Your task to perform on an android device: turn off notifications settings in the gmail app Image 0: 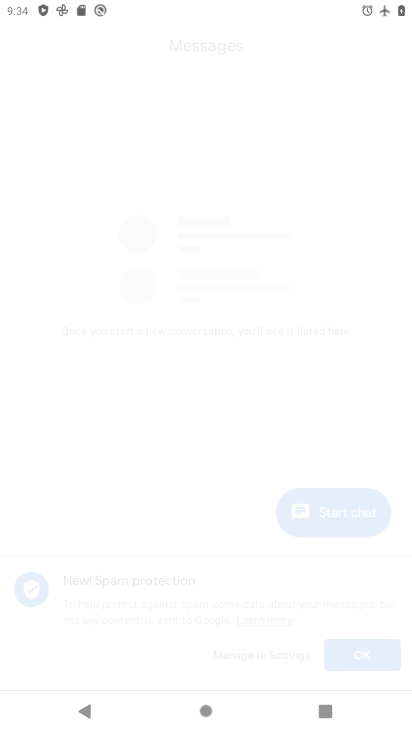
Step 0: drag from (293, 503) to (216, 48)
Your task to perform on an android device: turn off notifications settings in the gmail app Image 1: 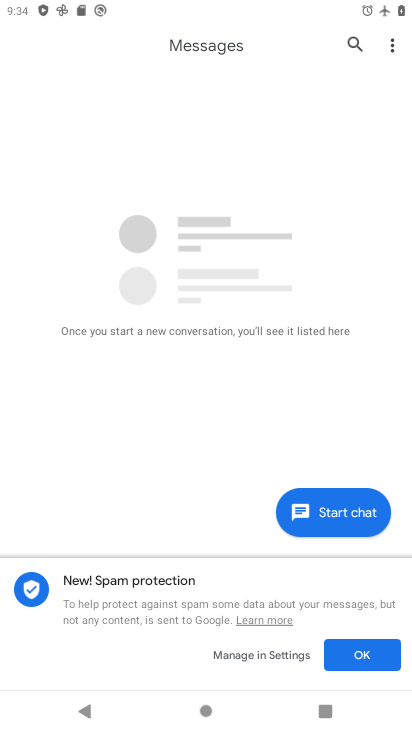
Step 1: press home button
Your task to perform on an android device: turn off notifications settings in the gmail app Image 2: 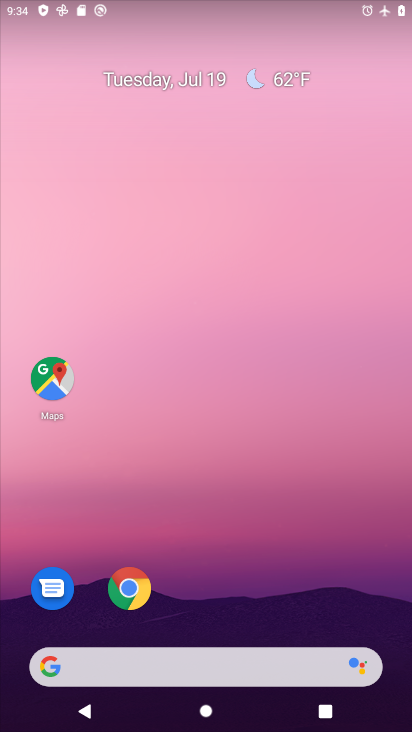
Step 2: drag from (256, 527) to (219, 176)
Your task to perform on an android device: turn off notifications settings in the gmail app Image 3: 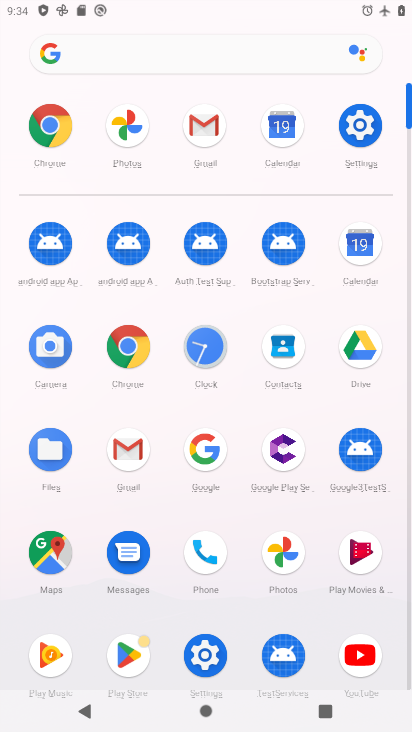
Step 3: click (210, 126)
Your task to perform on an android device: turn off notifications settings in the gmail app Image 4: 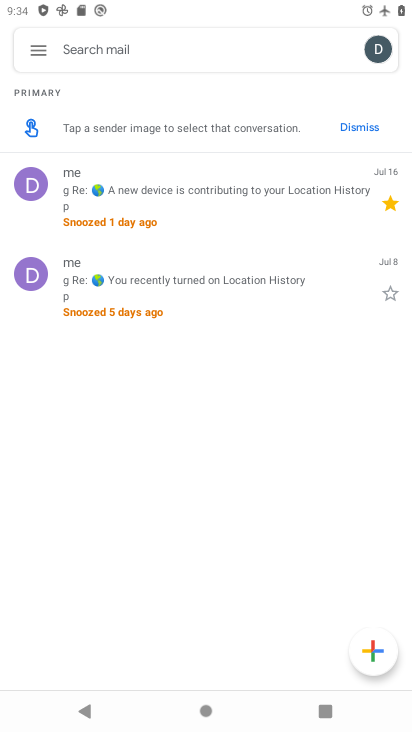
Step 4: click (34, 44)
Your task to perform on an android device: turn off notifications settings in the gmail app Image 5: 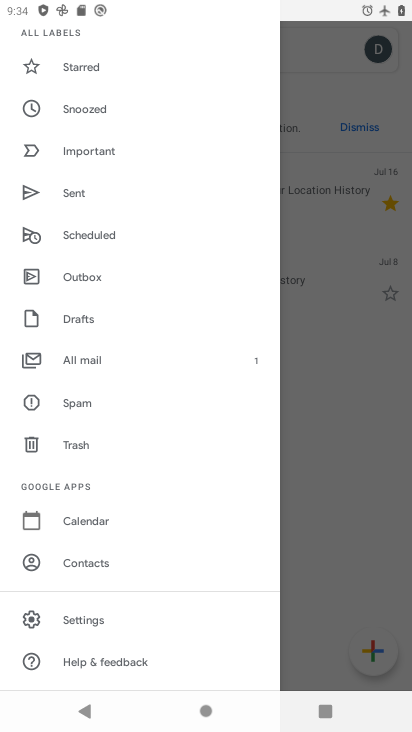
Step 5: click (84, 621)
Your task to perform on an android device: turn off notifications settings in the gmail app Image 6: 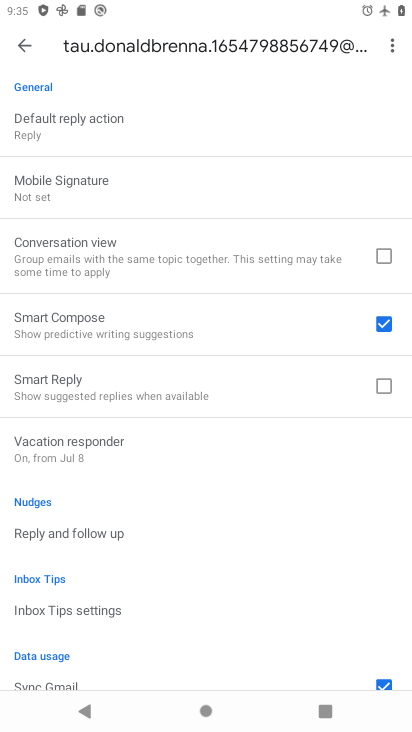
Step 6: drag from (183, 599) to (218, 133)
Your task to perform on an android device: turn off notifications settings in the gmail app Image 7: 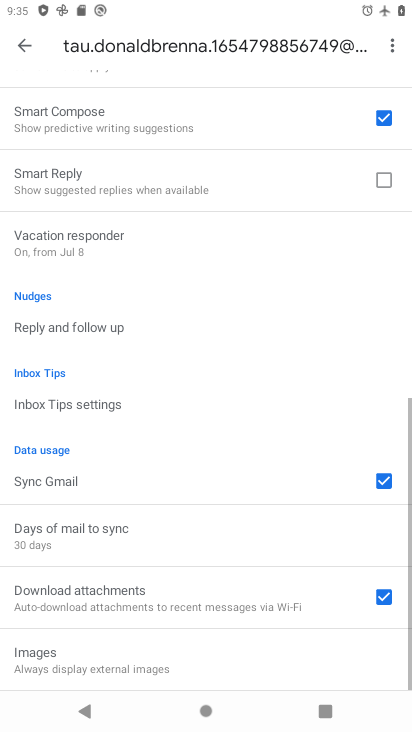
Step 7: drag from (218, 132) to (185, 647)
Your task to perform on an android device: turn off notifications settings in the gmail app Image 8: 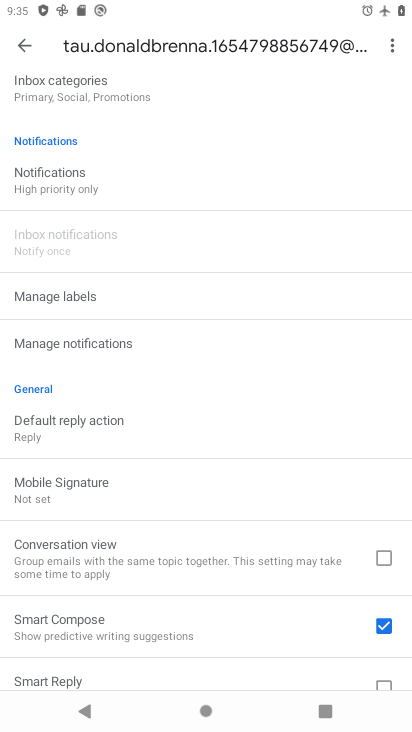
Step 8: drag from (160, 91) to (217, 566)
Your task to perform on an android device: turn off notifications settings in the gmail app Image 9: 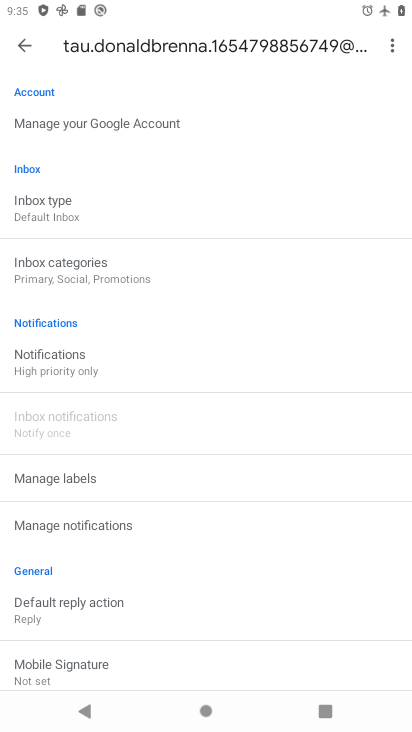
Step 9: drag from (155, 162) to (182, 524)
Your task to perform on an android device: turn off notifications settings in the gmail app Image 10: 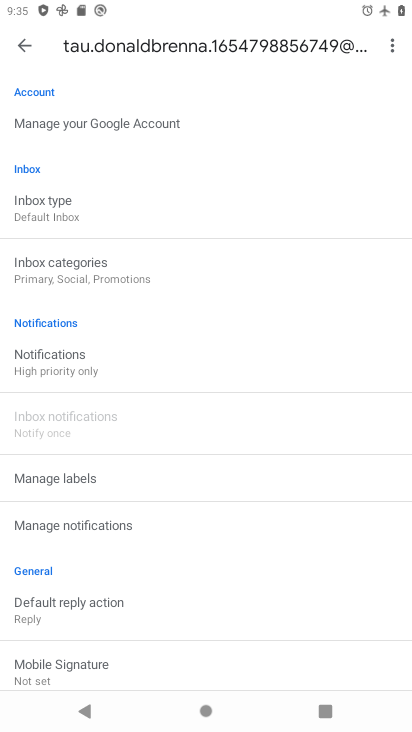
Step 10: click (52, 349)
Your task to perform on an android device: turn off notifications settings in the gmail app Image 11: 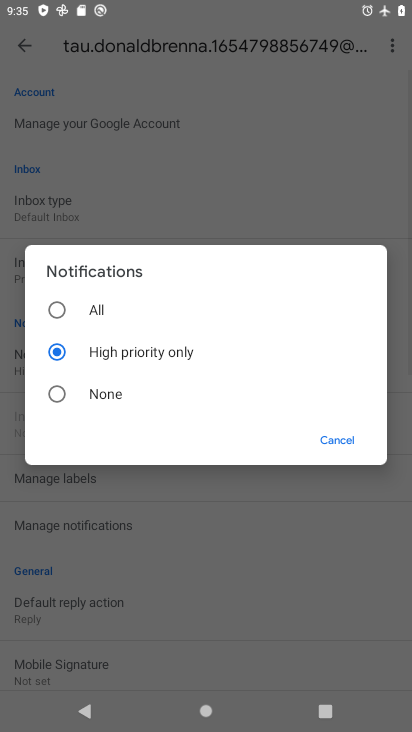
Step 11: click (96, 398)
Your task to perform on an android device: turn off notifications settings in the gmail app Image 12: 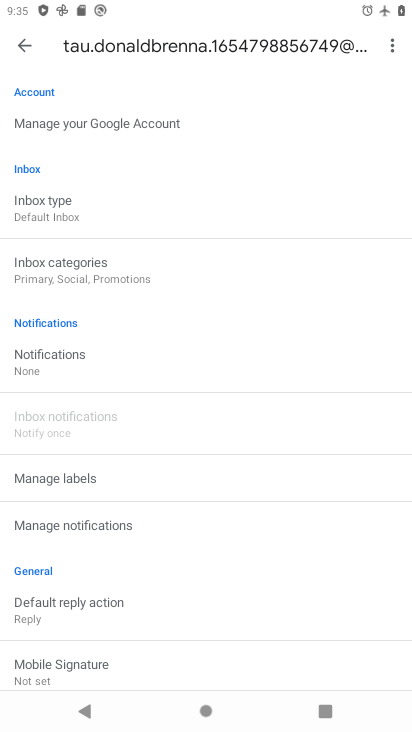
Step 12: task complete